Your task to perform on an android device: find photos in the google photos app Image 0: 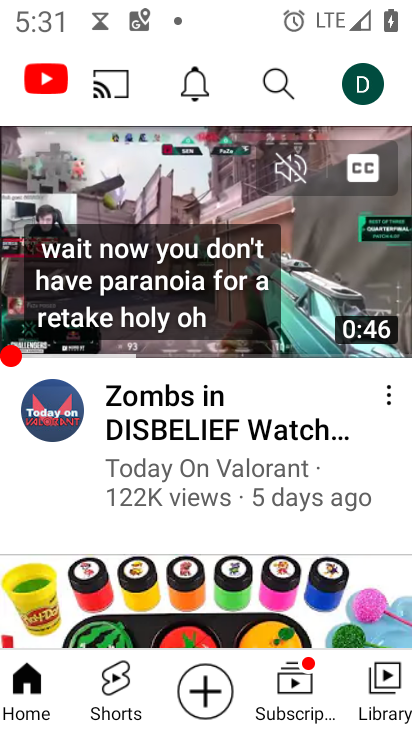
Step 0: press home button
Your task to perform on an android device: find photos in the google photos app Image 1: 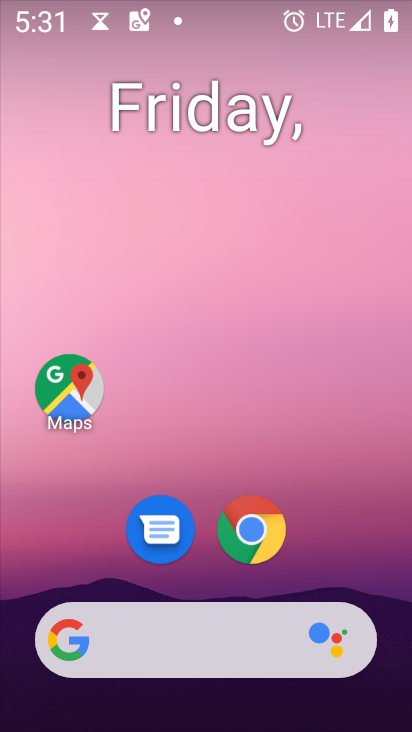
Step 1: drag from (331, 565) to (234, 25)
Your task to perform on an android device: find photos in the google photos app Image 2: 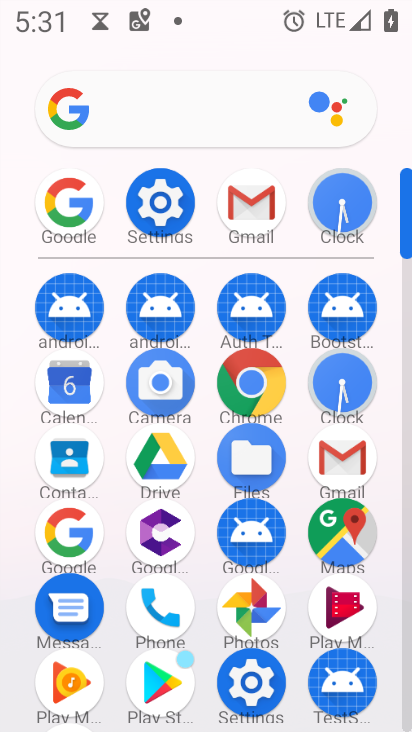
Step 2: click (265, 603)
Your task to perform on an android device: find photos in the google photos app Image 3: 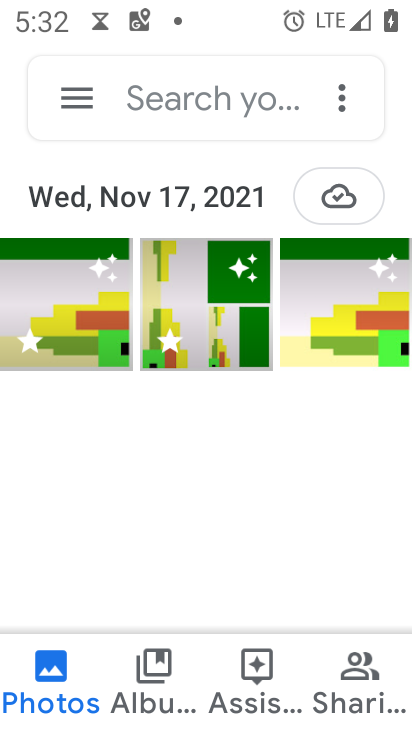
Step 3: click (76, 305)
Your task to perform on an android device: find photos in the google photos app Image 4: 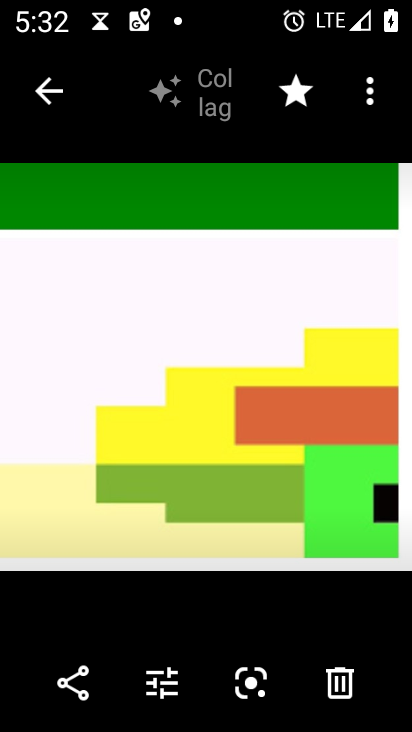
Step 4: task complete